Your task to perform on an android device: Open my contact list Image 0: 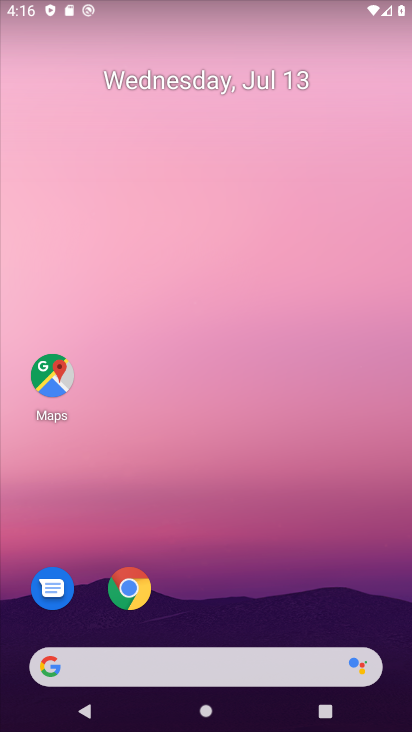
Step 0: drag from (69, 695) to (323, 14)
Your task to perform on an android device: Open my contact list Image 1: 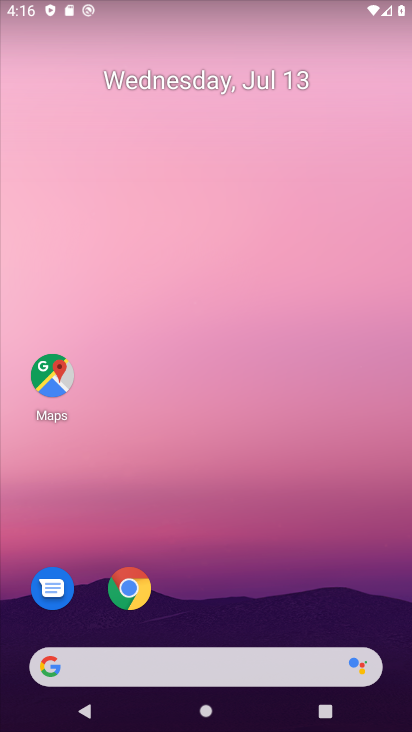
Step 1: drag from (56, 711) to (197, 215)
Your task to perform on an android device: Open my contact list Image 2: 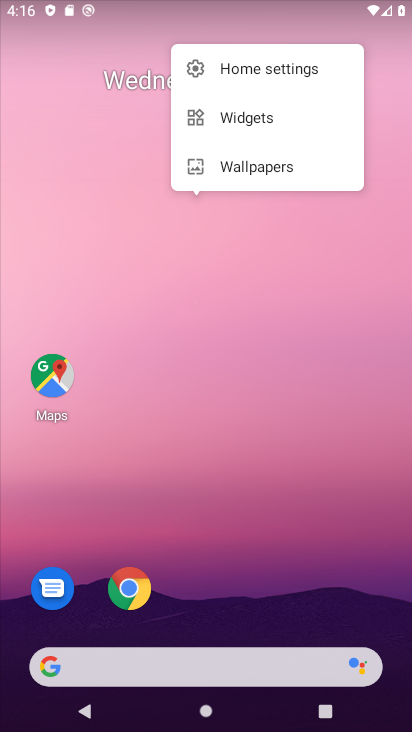
Step 2: drag from (34, 708) to (187, 75)
Your task to perform on an android device: Open my contact list Image 3: 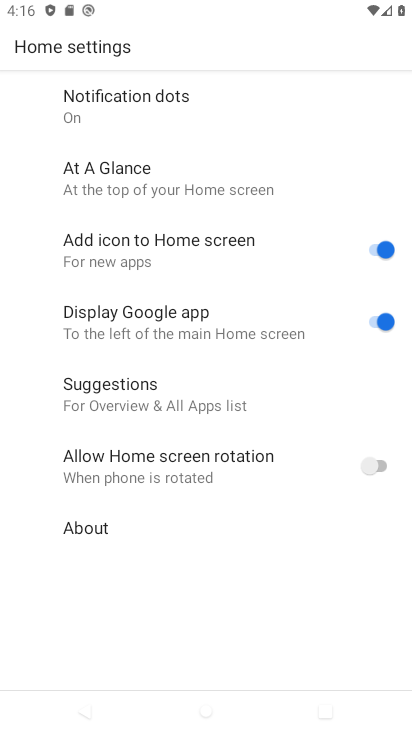
Step 3: press home button
Your task to perform on an android device: Open my contact list Image 4: 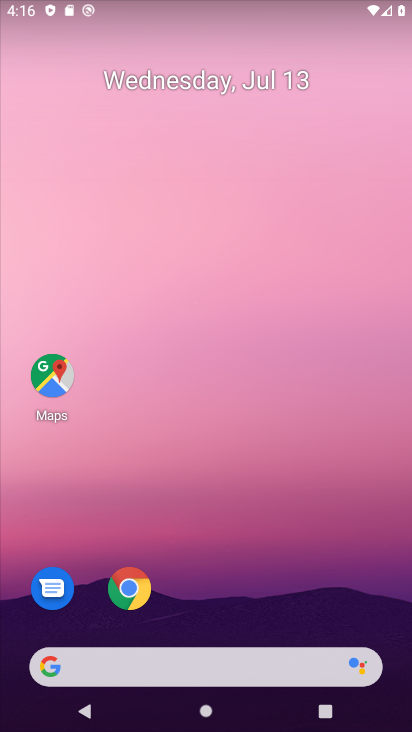
Step 4: drag from (25, 707) to (307, 7)
Your task to perform on an android device: Open my contact list Image 5: 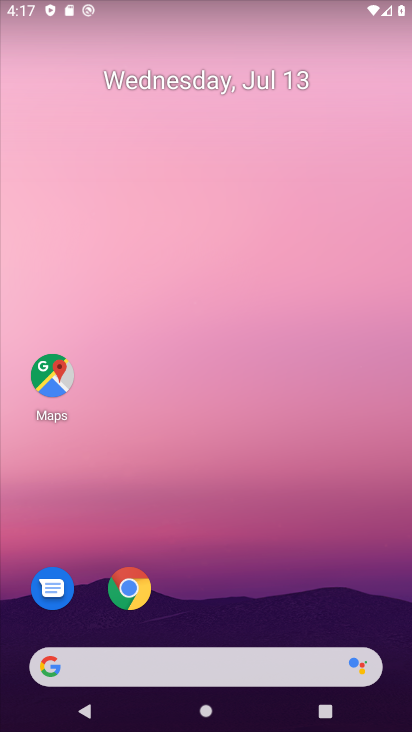
Step 5: drag from (169, 214) to (215, 6)
Your task to perform on an android device: Open my contact list Image 6: 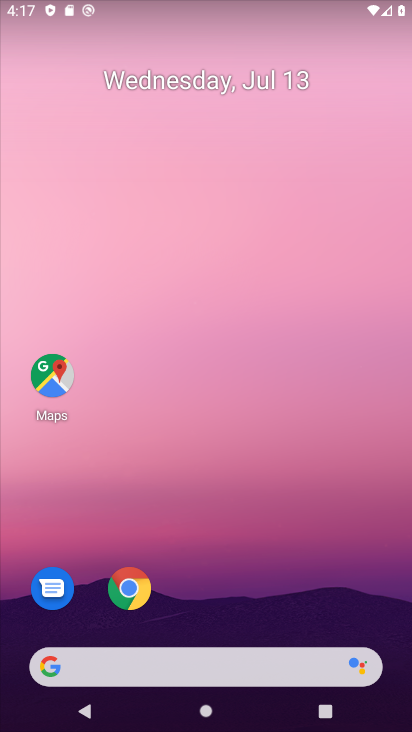
Step 6: drag from (56, 703) to (156, 89)
Your task to perform on an android device: Open my contact list Image 7: 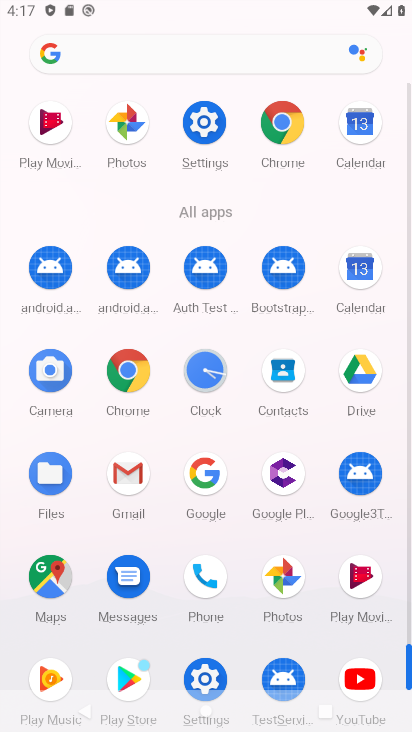
Step 7: click (201, 576)
Your task to perform on an android device: Open my contact list Image 8: 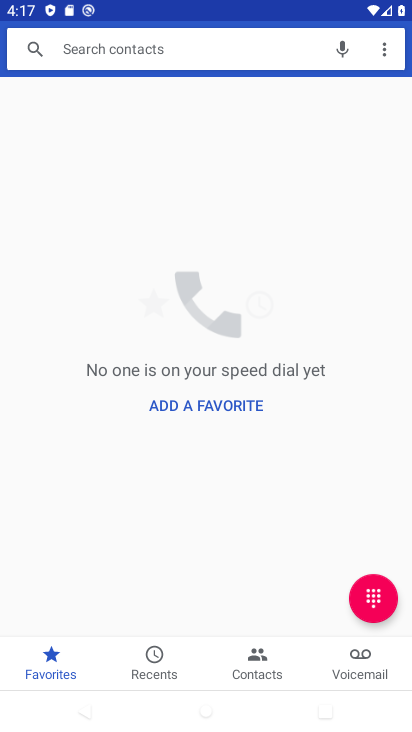
Step 8: click (249, 666)
Your task to perform on an android device: Open my contact list Image 9: 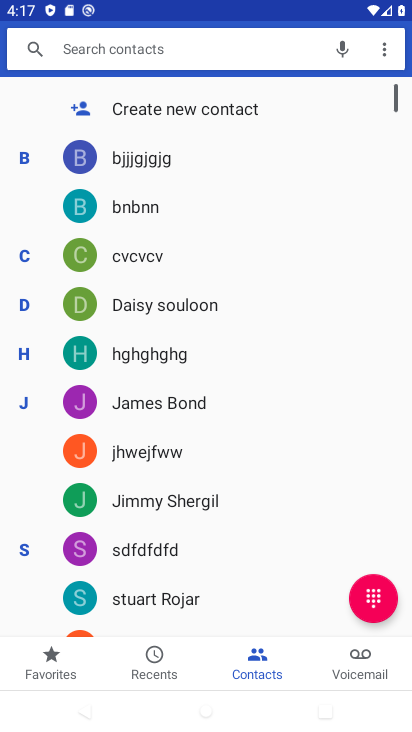
Step 9: task complete